Your task to perform on an android device: Go to Google Image 0: 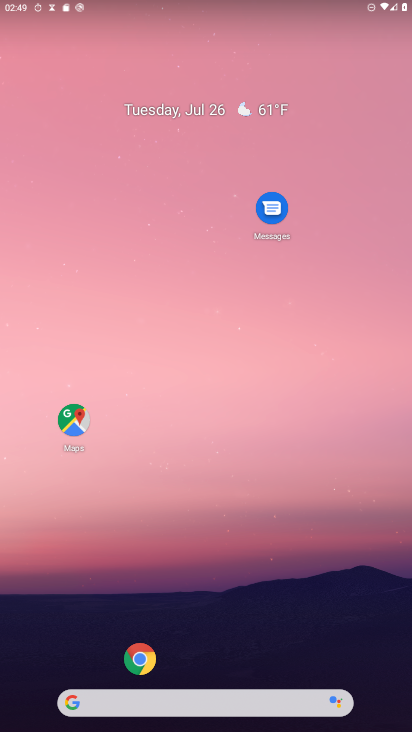
Step 0: click (97, 692)
Your task to perform on an android device: Go to Google Image 1: 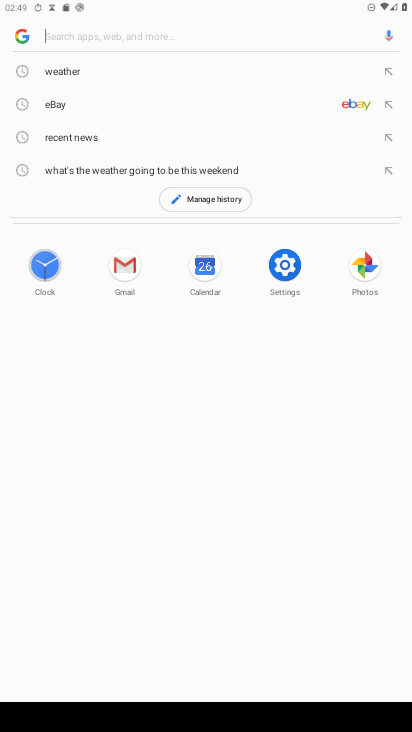
Step 1: task complete